Your task to perform on an android device: Open ESPN.com Image 0: 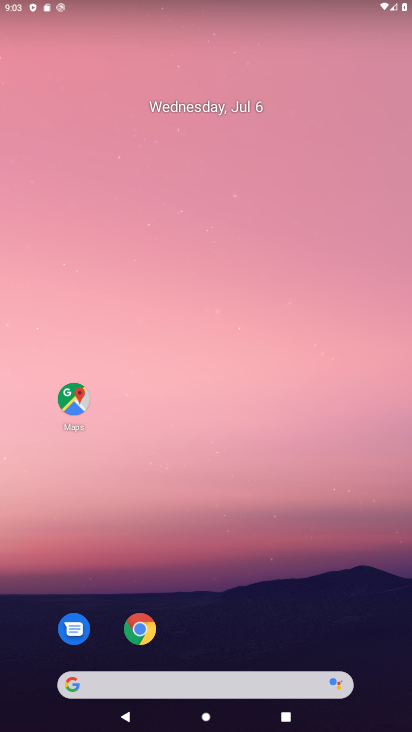
Step 0: click (140, 625)
Your task to perform on an android device: Open ESPN.com Image 1: 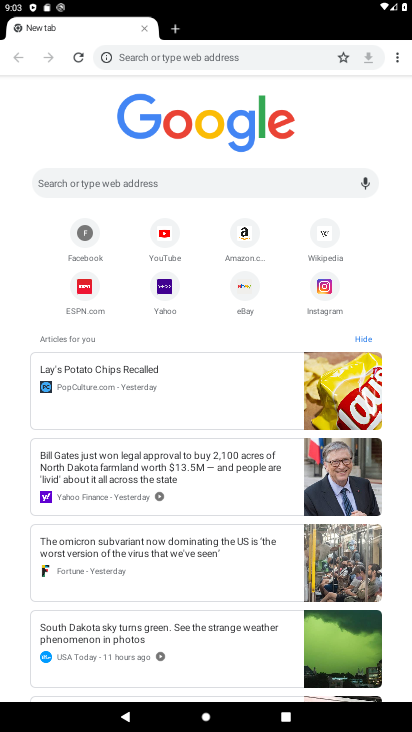
Step 1: click (98, 303)
Your task to perform on an android device: Open ESPN.com Image 2: 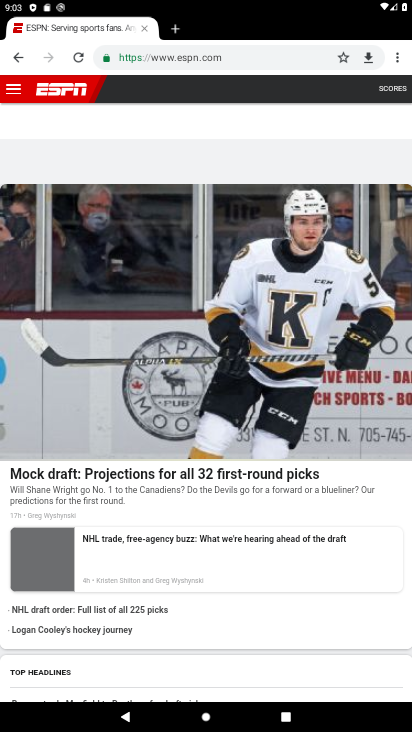
Step 2: task complete